Your task to perform on an android device: Open maps Image 0: 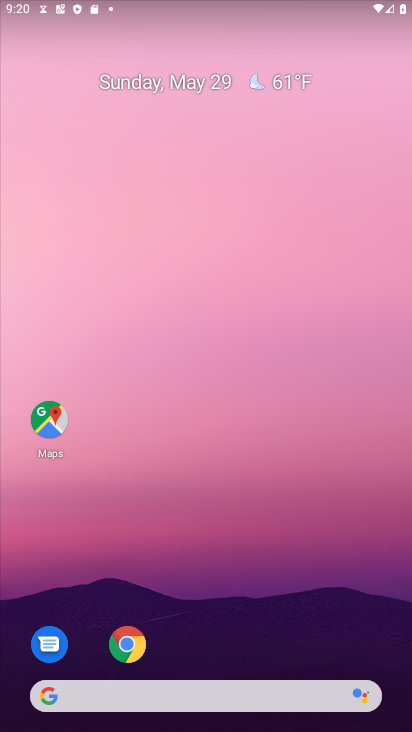
Step 0: drag from (209, 680) to (199, 204)
Your task to perform on an android device: Open maps Image 1: 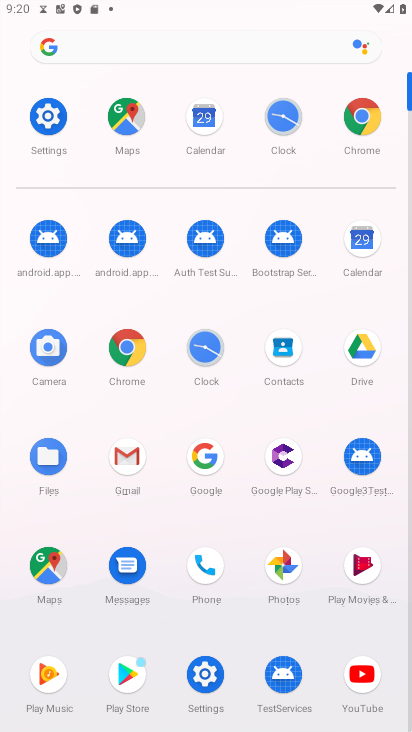
Step 1: click (55, 560)
Your task to perform on an android device: Open maps Image 2: 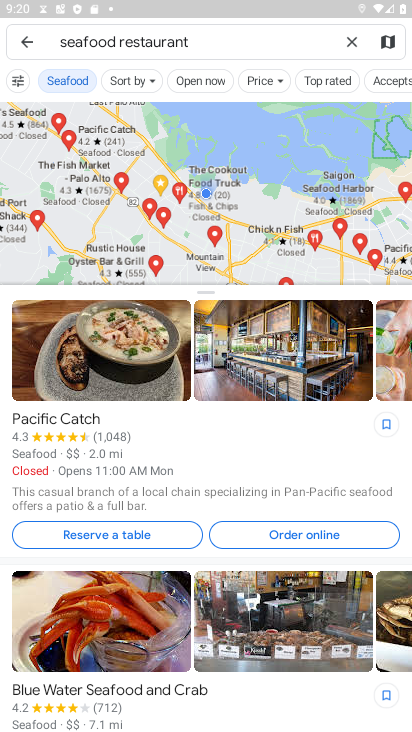
Step 2: task complete